Your task to perform on an android device: Open the Play Movies app and select the watchlist tab. Image 0: 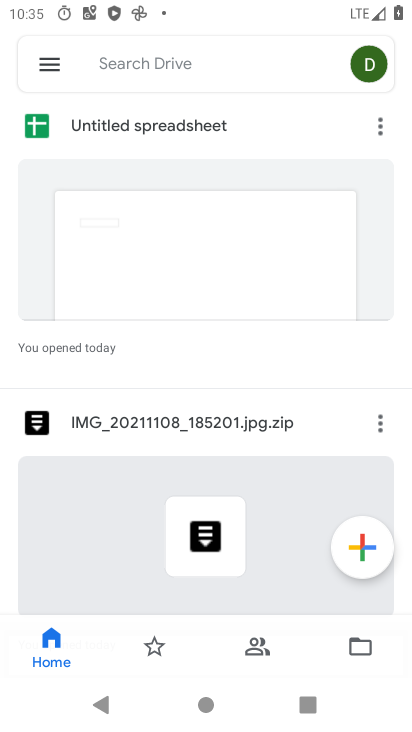
Step 0: press home button
Your task to perform on an android device: Open the Play Movies app and select the watchlist tab. Image 1: 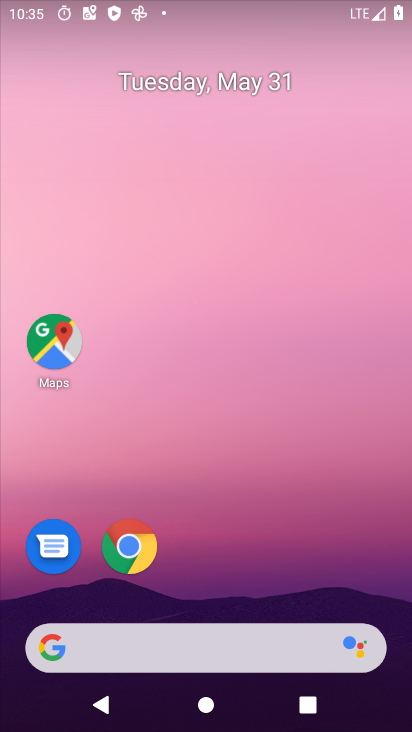
Step 1: drag from (244, 562) to (277, 27)
Your task to perform on an android device: Open the Play Movies app and select the watchlist tab. Image 2: 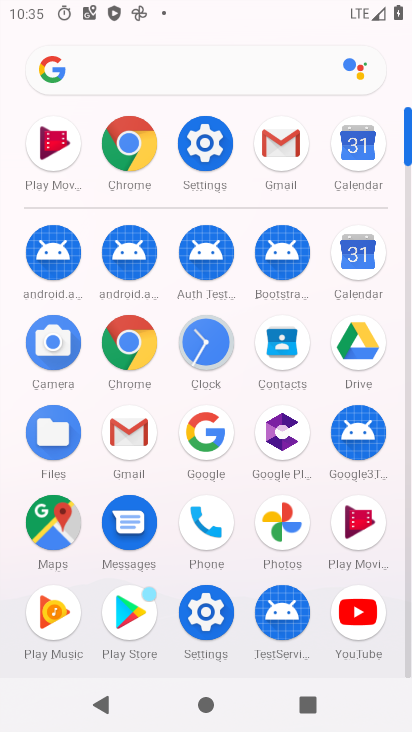
Step 2: click (57, 147)
Your task to perform on an android device: Open the Play Movies app and select the watchlist tab. Image 3: 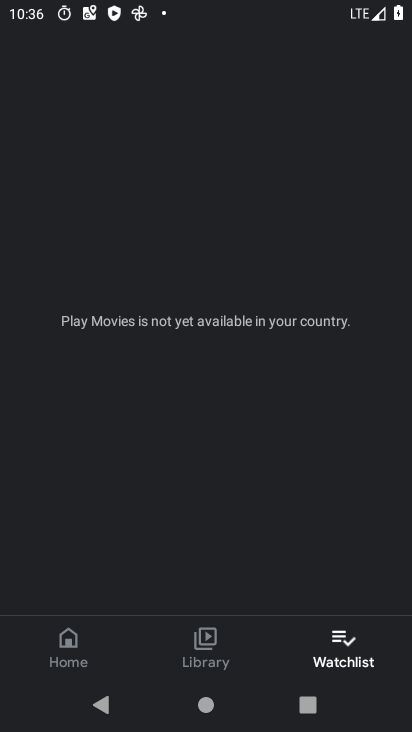
Step 3: task complete